Your task to perform on an android device: Open Youtube and go to "Your channel" Image 0: 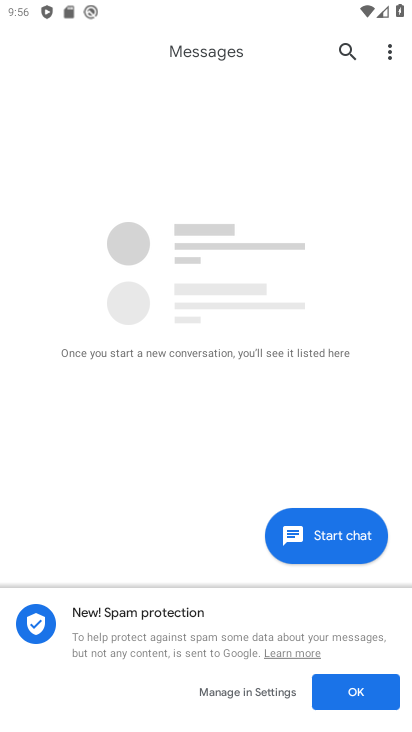
Step 0: press home button
Your task to perform on an android device: Open Youtube and go to "Your channel" Image 1: 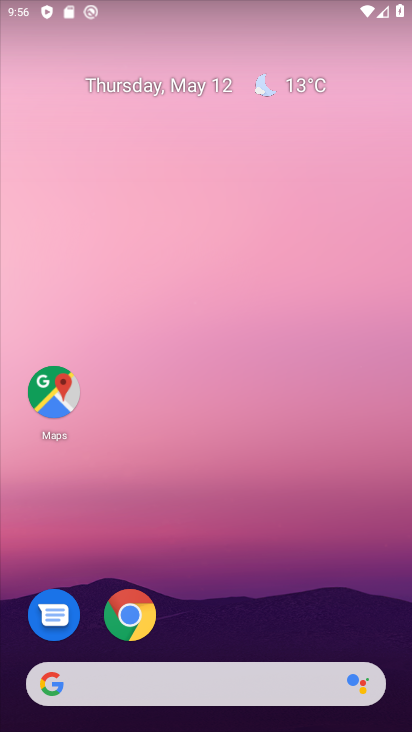
Step 1: drag from (276, 602) to (322, 95)
Your task to perform on an android device: Open Youtube and go to "Your channel" Image 2: 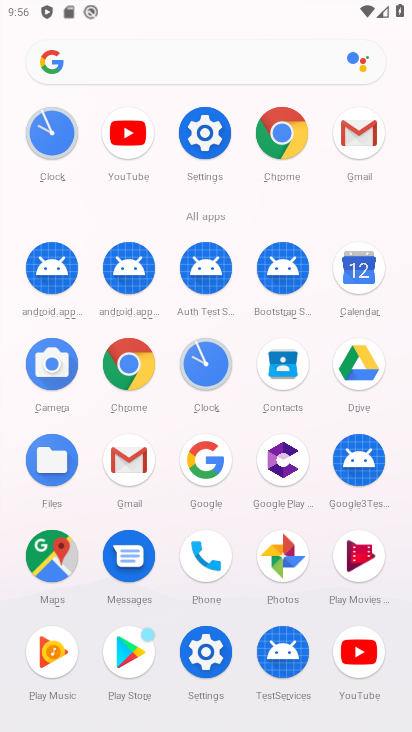
Step 2: click (126, 130)
Your task to perform on an android device: Open Youtube and go to "Your channel" Image 3: 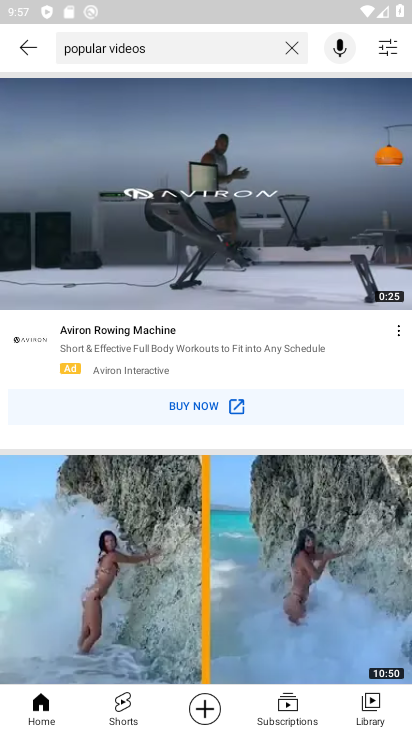
Step 3: click (26, 50)
Your task to perform on an android device: Open Youtube and go to "Your channel" Image 4: 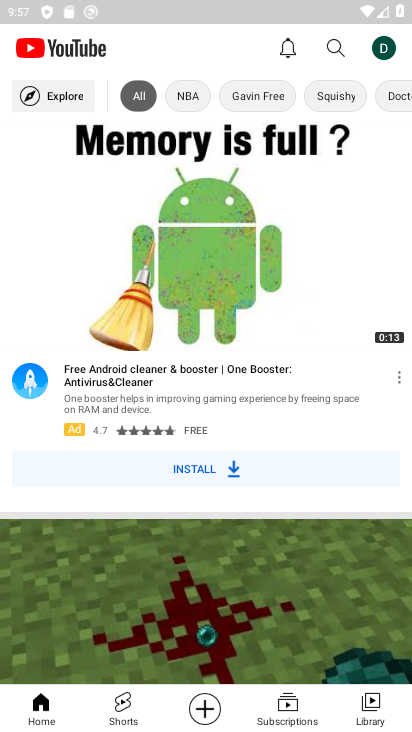
Step 4: click (394, 45)
Your task to perform on an android device: Open Youtube and go to "Your channel" Image 5: 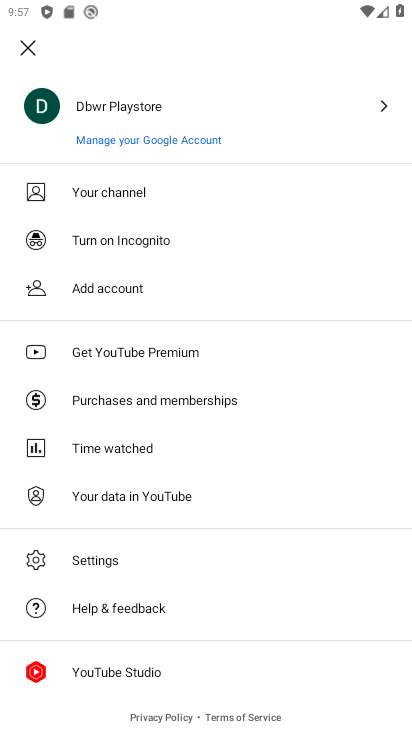
Step 5: click (87, 189)
Your task to perform on an android device: Open Youtube and go to "Your channel" Image 6: 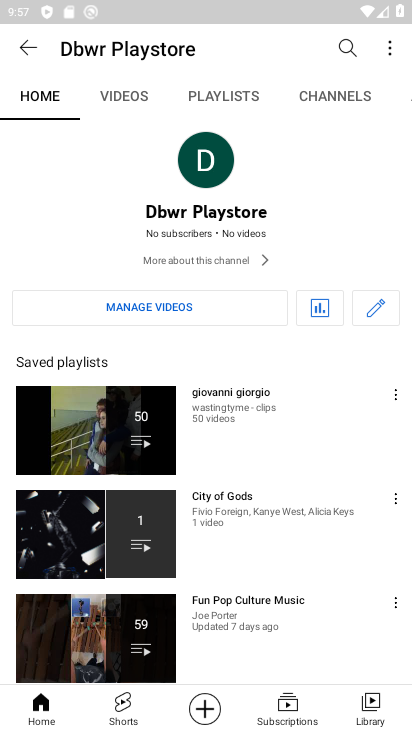
Step 6: task complete